Your task to perform on an android device: Open notification settings Image 0: 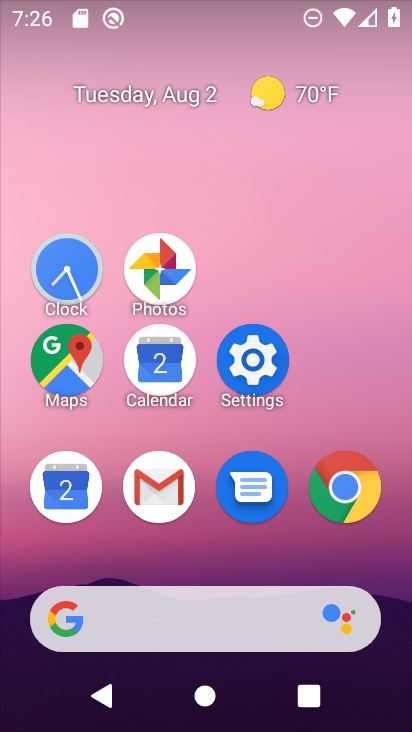
Step 0: click (251, 358)
Your task to perform on an android device: Open notification settings Image 1: 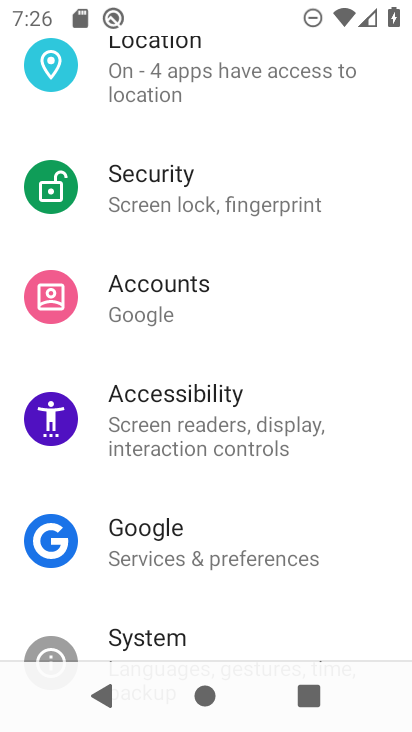
Step 1: drag from (247, 156) to (202, 469)
Your task to perform on an android device: Open notification settings Image 2: 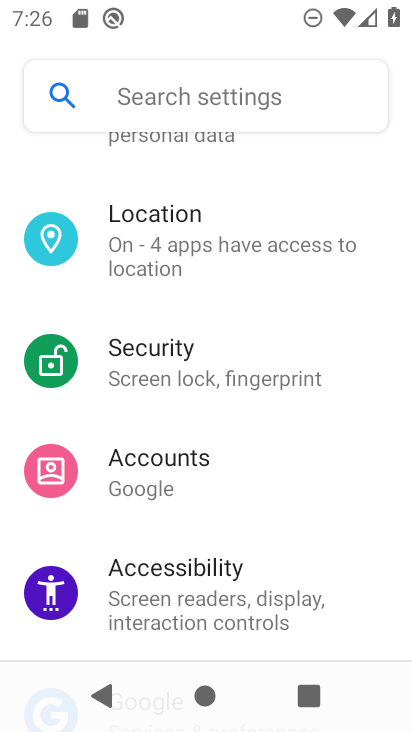
Step 2: drag from (210, 312) to (250, 637)
Your task to perform on an android device: Open notification settings Image 3: 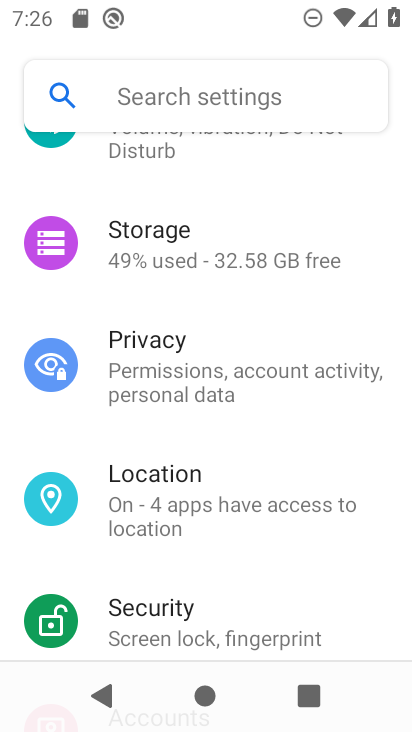
Step 3: drag from (231, 311) to (169, 594)
Your task to perform on an android device: Open notification settings Image 4: 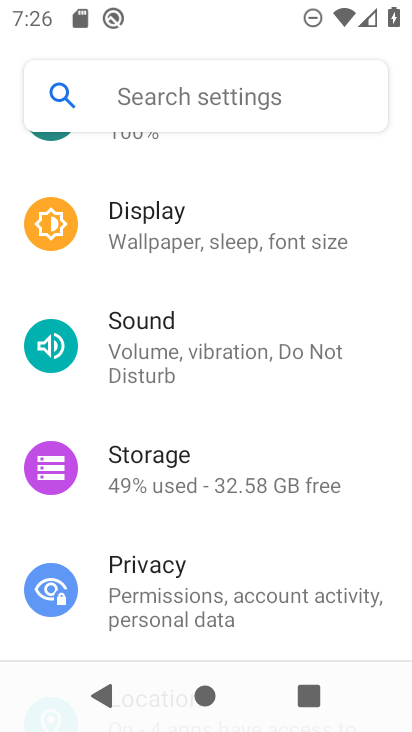
Step 4: drag from (195, 289) to (117, 730)
Your task to perform on an android device: Open notification settings Image 5: 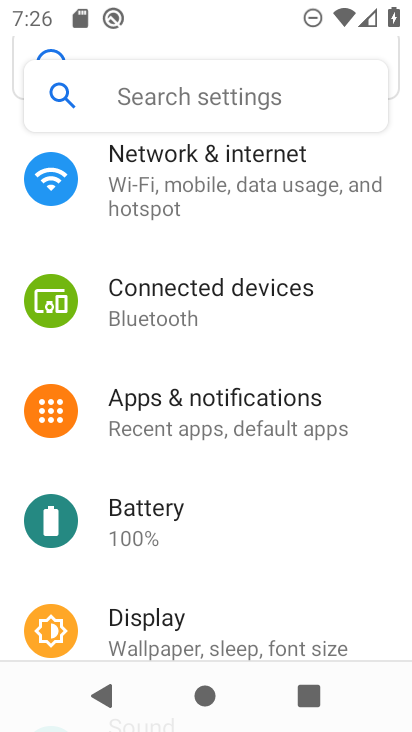
Step 5: click (215, 394)
Your task to perform on an android device: Open notification settings Image 6: 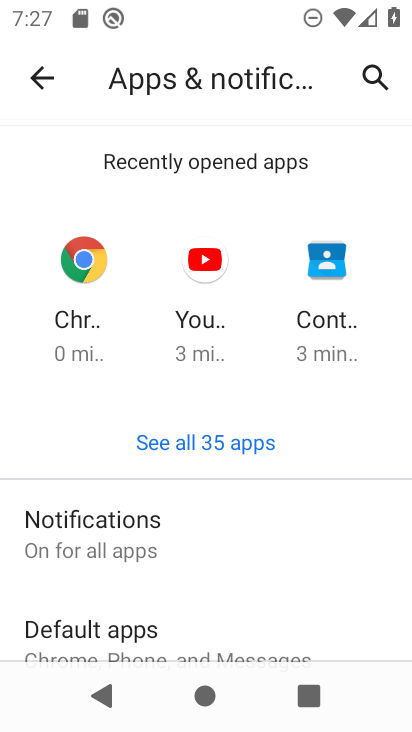
Step 6: task complete